Your task to perform on an android device: Look up the best rated 3d printer on Ali Express Image 0: 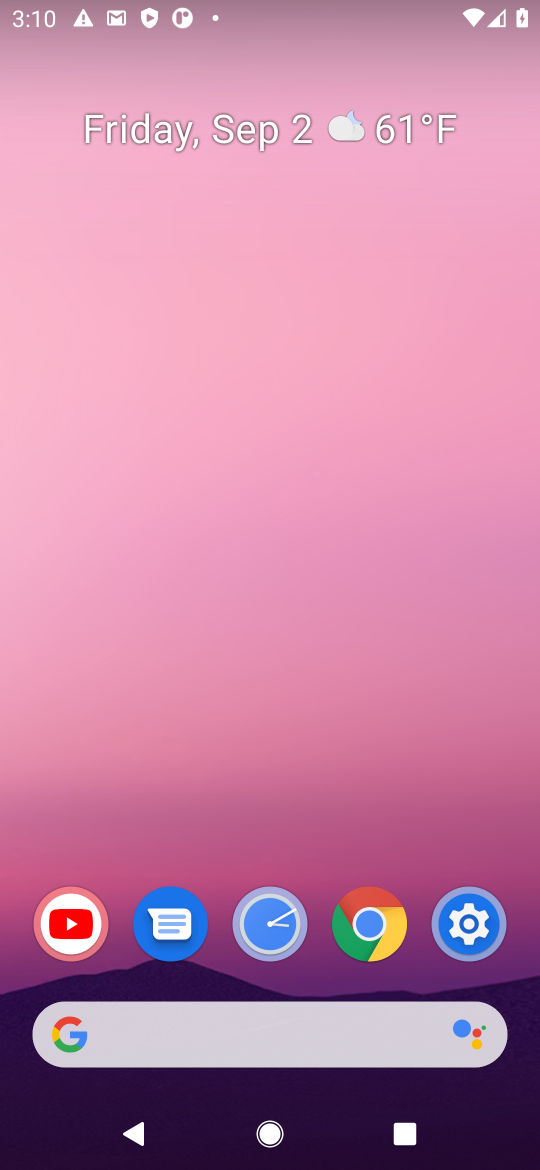
Step 0: click (386, 1032)
Your task to perform on an android device: Look up the best rated 3d printer on Ali Express Image 1: 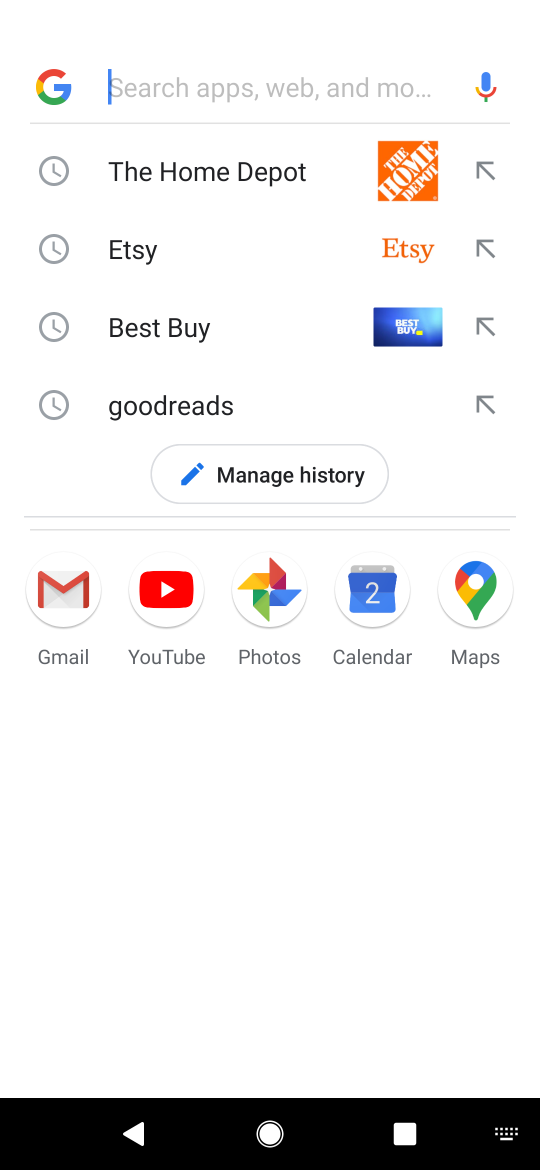
Step 1: press enter
Your task to perform on an android device: Look up the best rated 3d printer on Ali Express Image 2: 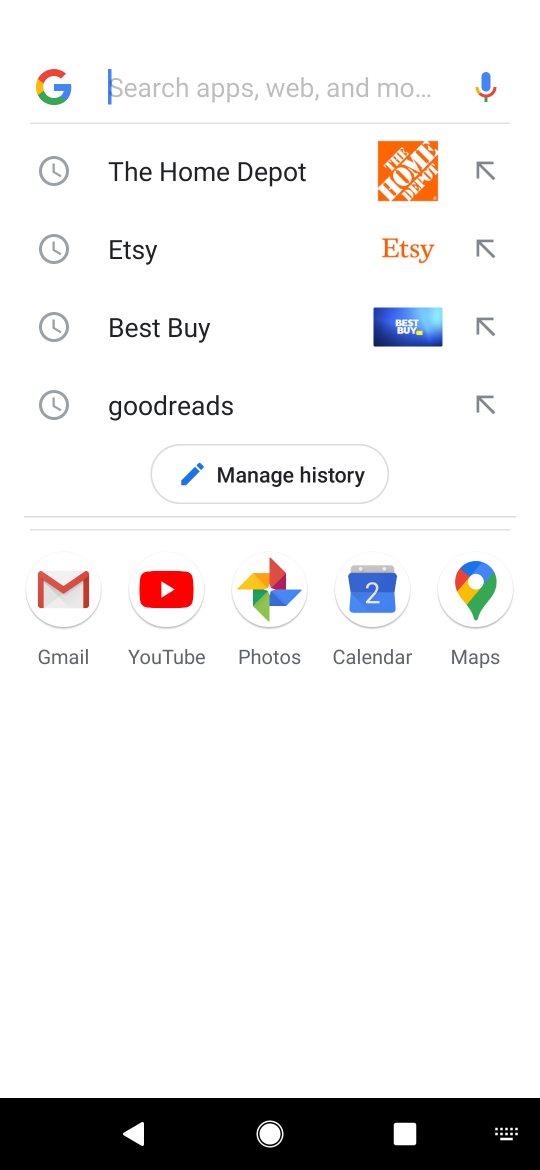
Step 2: type "aliexpress"
Your task to perform on an android device: Look up the best rated 3d printer on Ali Express Image 3: 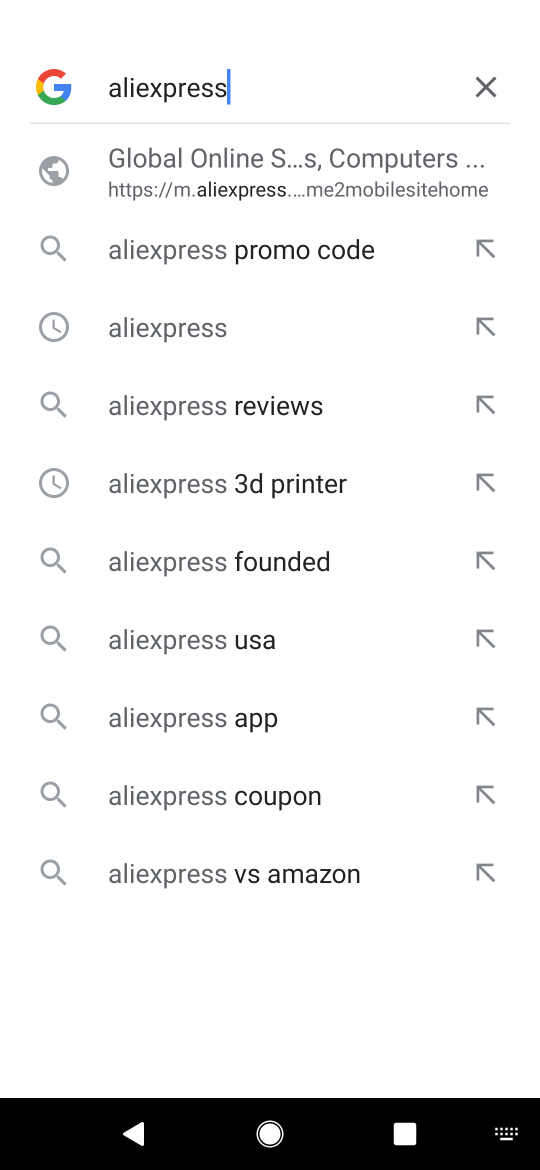
Step 3: click (293, 171)
Your task to perform on an android device: Look up the best rated 3d printer on Ali Express Image 4: 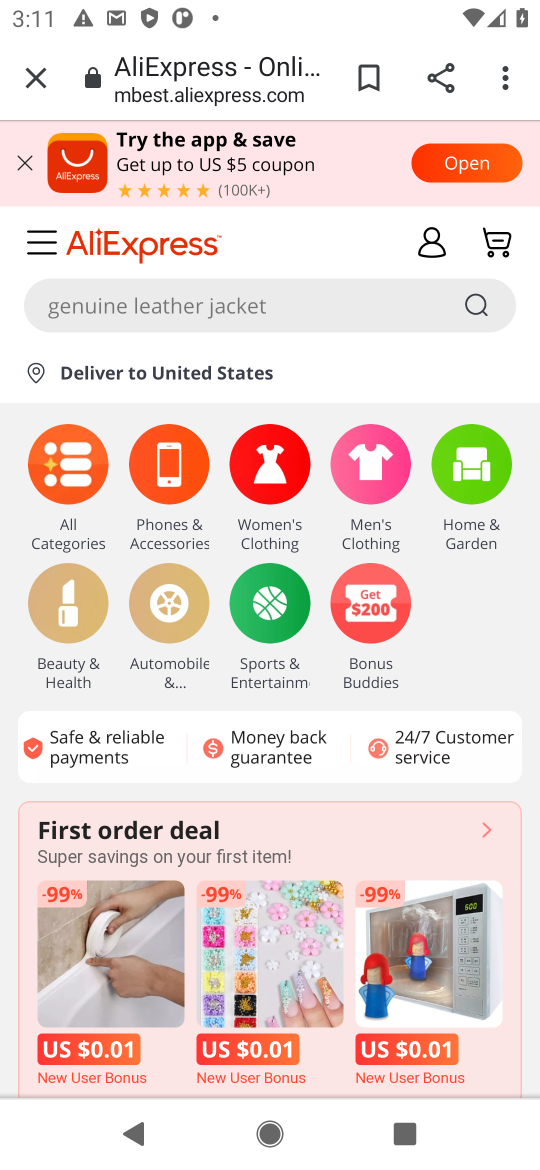
Step 4: click (186, 303)
Your task to perform on an android device: Look up the best rated 3d printer on Ali Express Image 5: 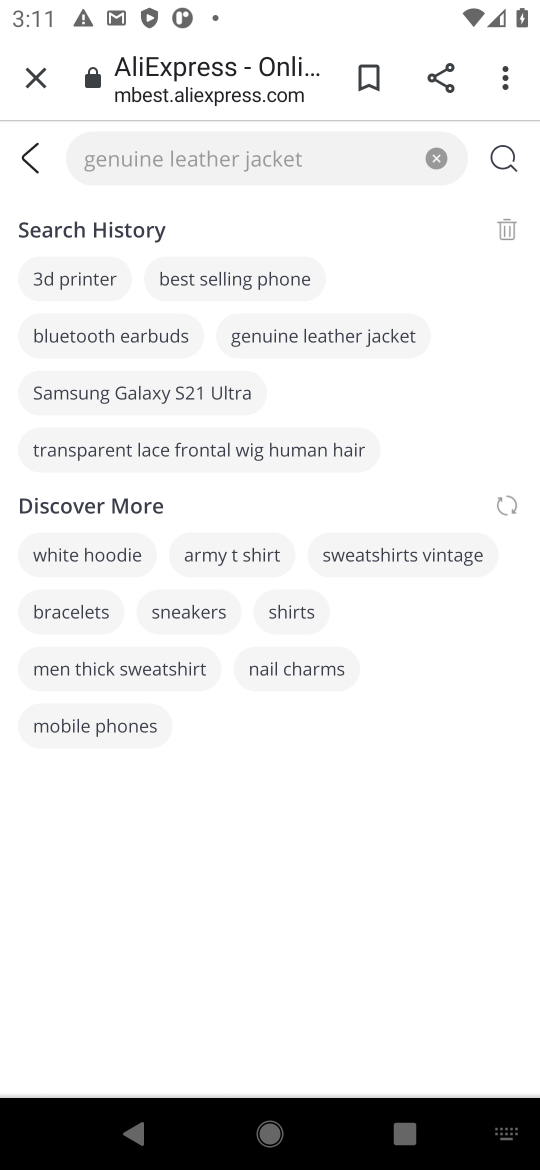
Step 5: click (66, 273)
Your task to perform on an android device: Look up the best rated 3d printer on Ali Express Image 6: 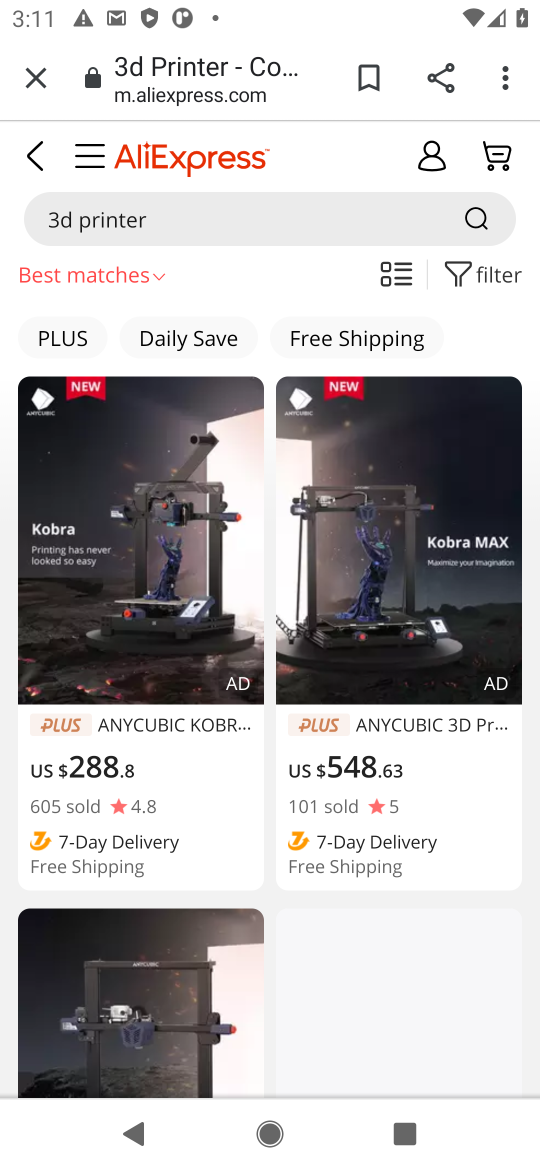
Step 6: task complete